Your task to perform on an android device: all mails in gmail Image 0: 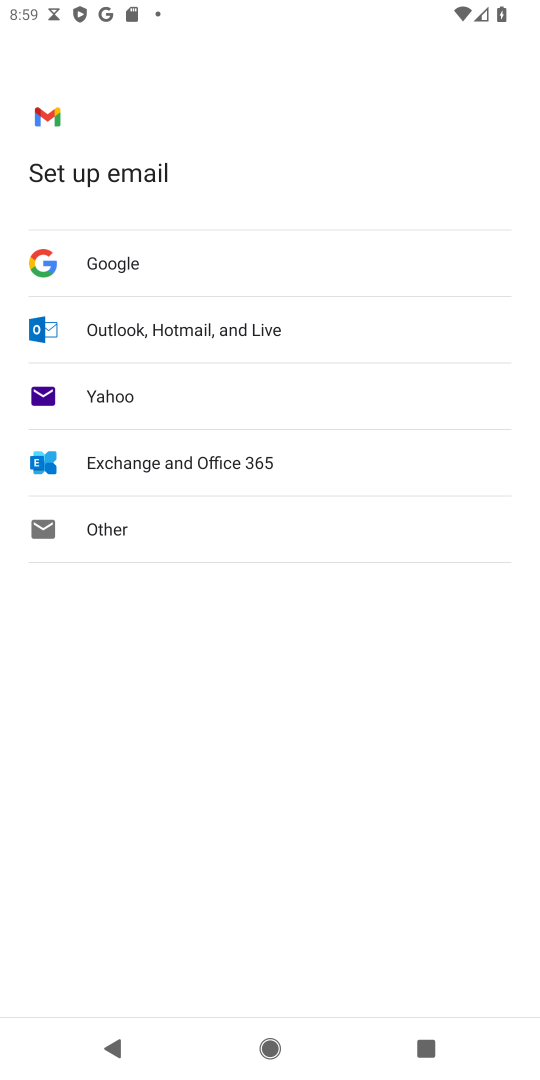
Step 0: press home button
Your task to perform on an android device: all mails in gmail Image 1: 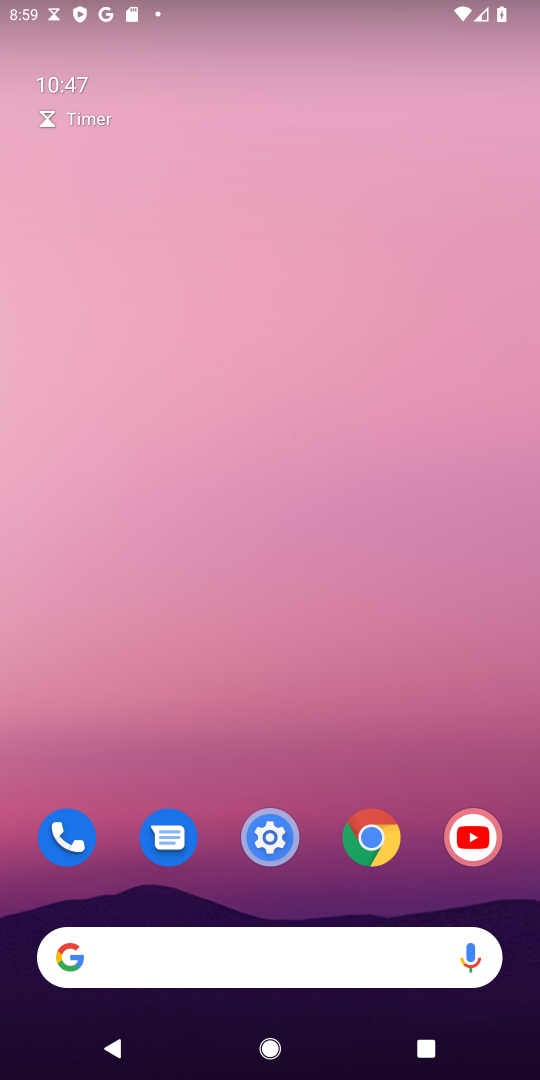
Step 1: drag from (321, 905) to (291, 101)
Your task to perform on an android device: all mails in gmail Image 2: 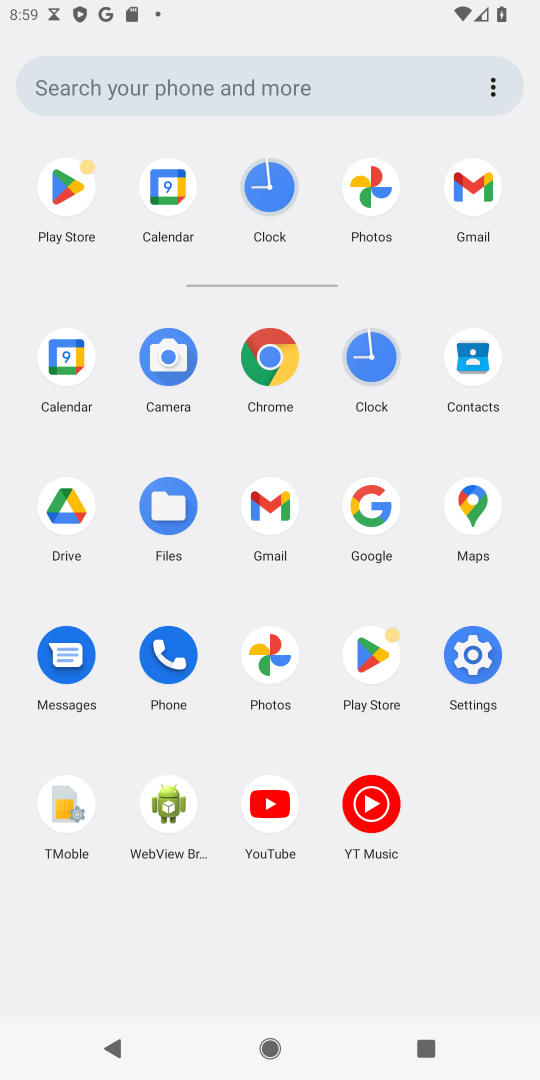
Step 2: click (274, 502)
Your task to perform on an android device: all mails in gmail Image 3: 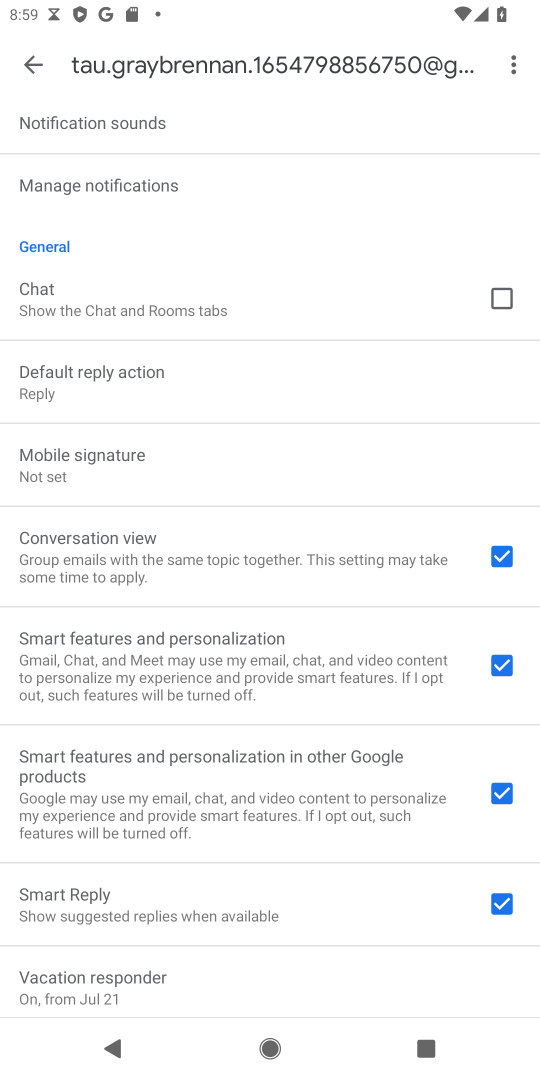
Step 3: click (42, 64)
Your task to perform on an android device: all mails in gmail Image 4: 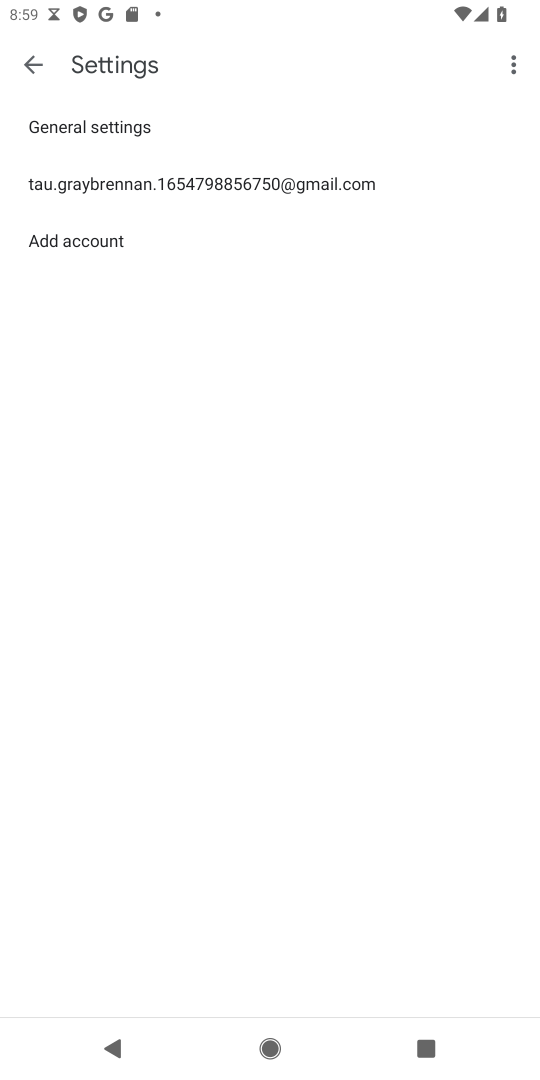
Step 4: click (37, 63)
Your task to perform on an android device: all mails in gmail Image 5: 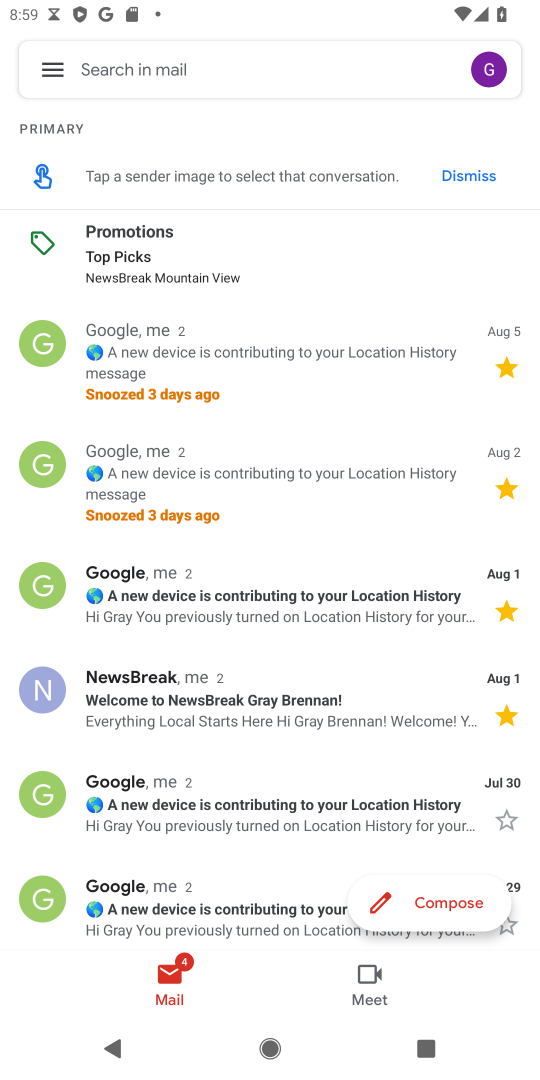
Step 5: click (47, 65)
Your task to perform on an android device: all mails in gmail Image 6: 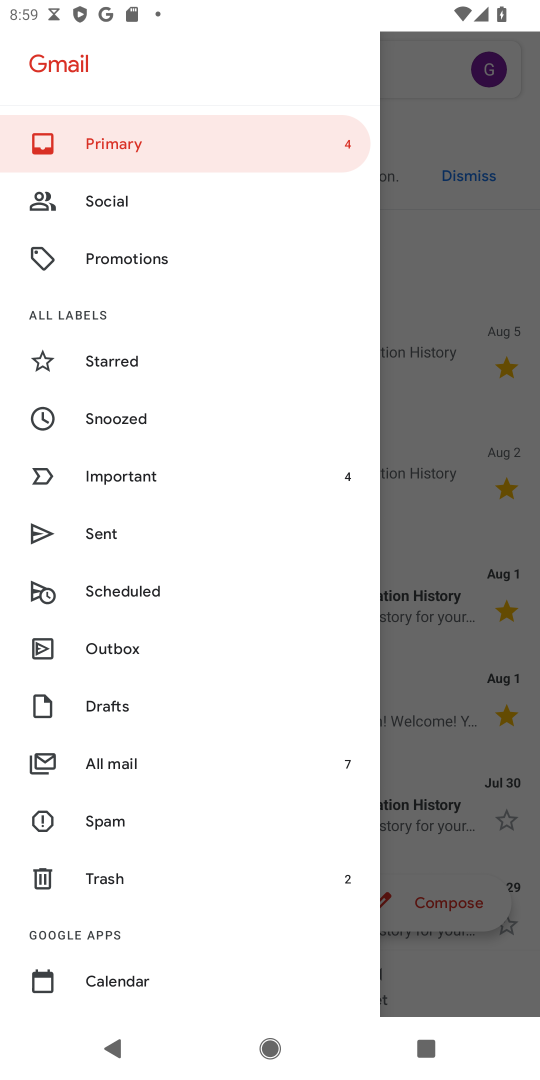
Step 6: click (124, 761)
Your task to perform on an android device: all mails in gmail Image 7: 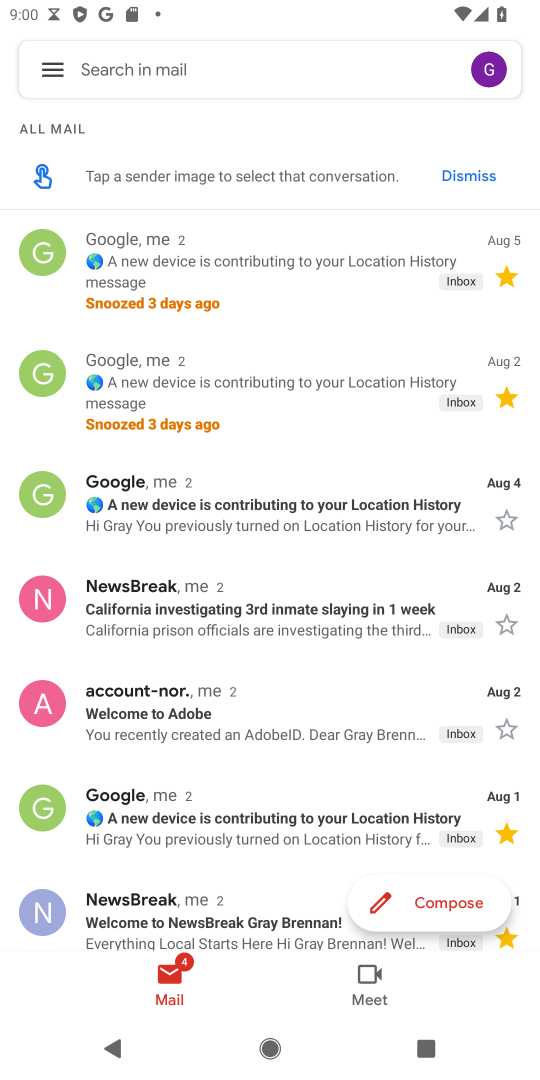
Step 7: task complete